Your task to perform on an android device: open a bookmark in the chrome app Image 0: 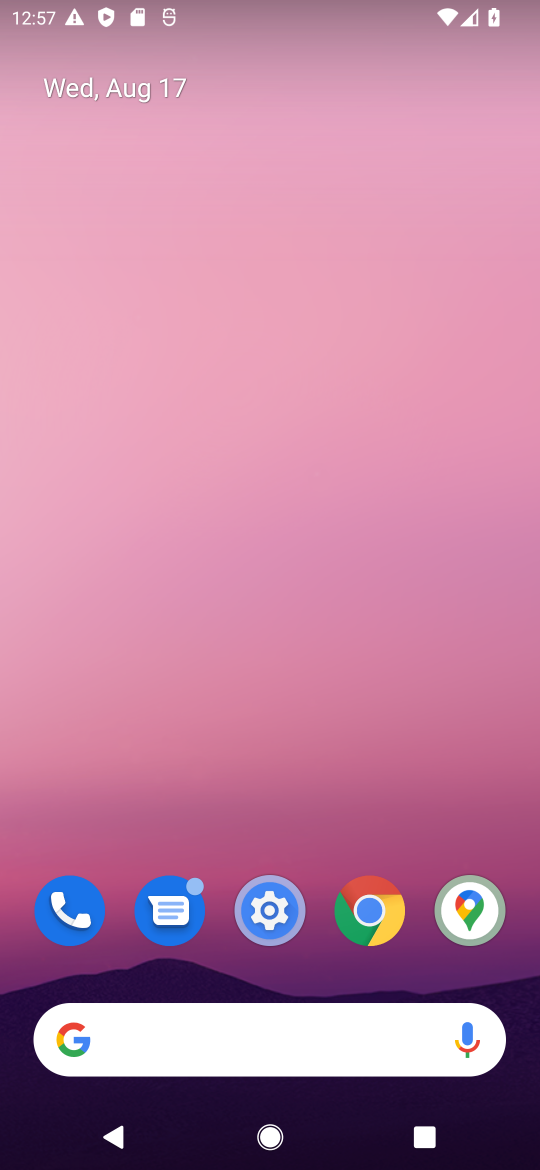
Step 0: click (381, 926)
Your task to perform on an android device: open a bookmark in the chrome app Image 1: 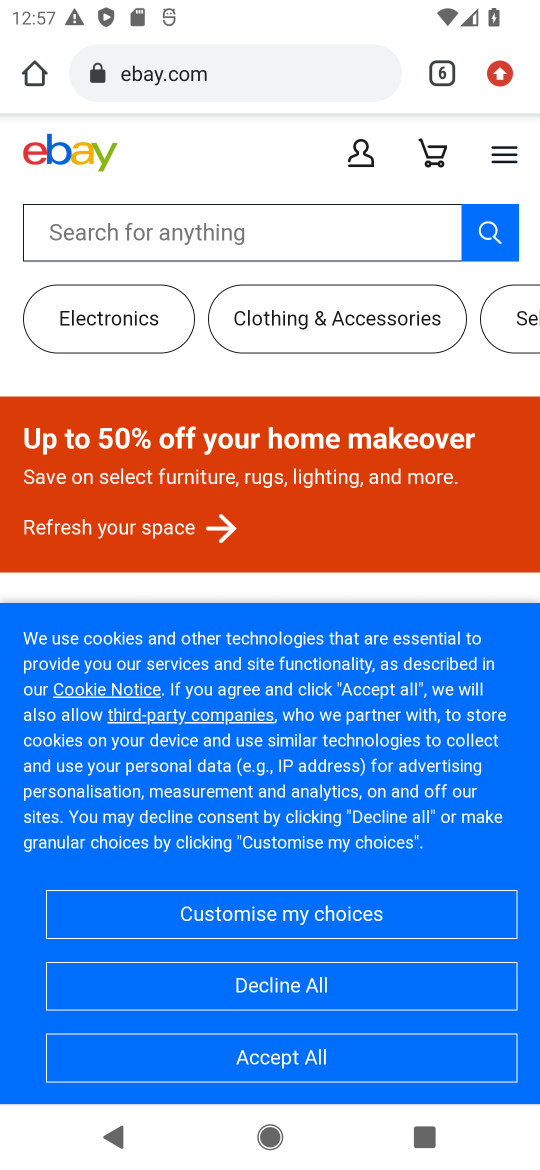
Step 1: drag from (505, 75) to (309, 524)
Your task to perform on an android device: open a bookmark in the chrome app Image 2: 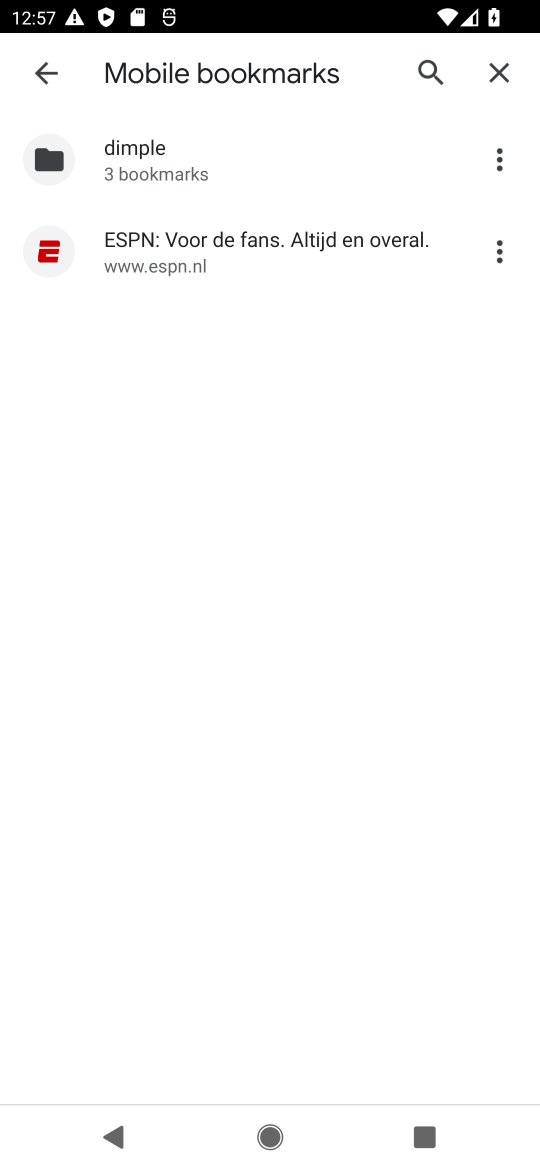
Step 2: click (210, 246)
Your task to perform on an android device: open a bookmark in the chrome app Image 3: 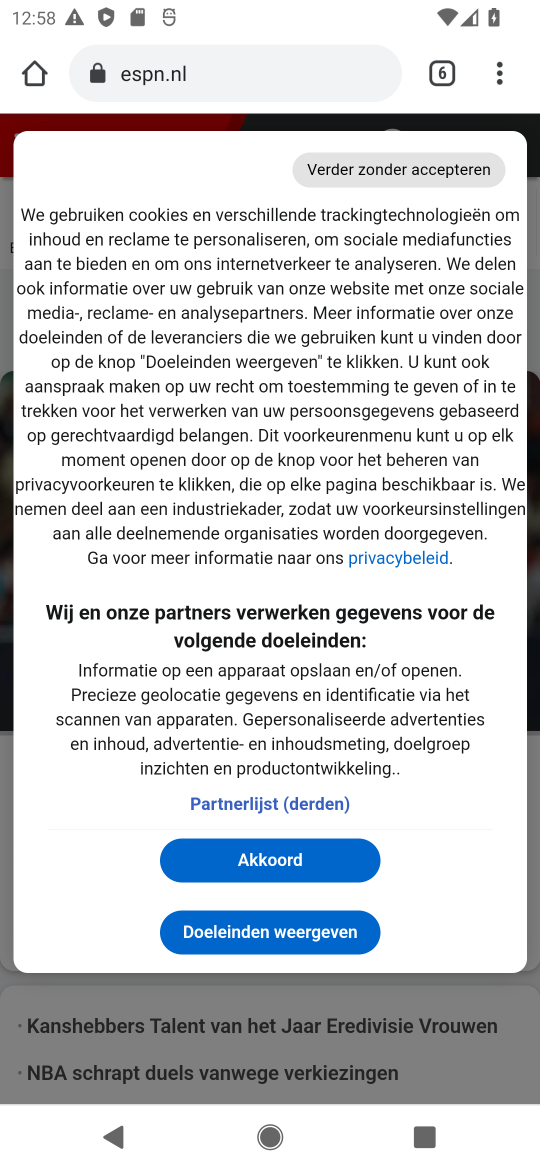
Step 3: task complete